Your task to perform on an android device: Show me the alarms in the clock app Image 0: 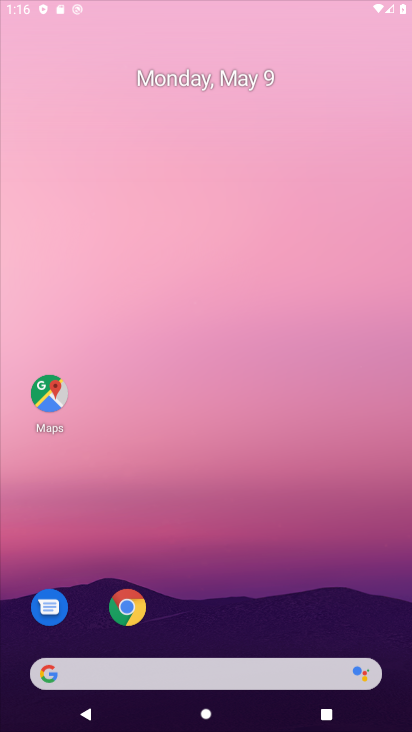
Step 0: click (263, 606)
Your task to perform on an android device: Show me the alarms in the clock app Image 1: 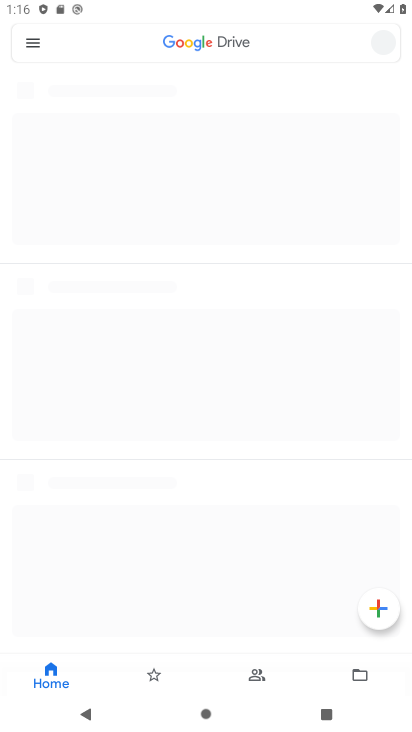
Step 1: click (42, 394)
Your task to perform on an android device: Show me the alarms in the clock app Image 2: 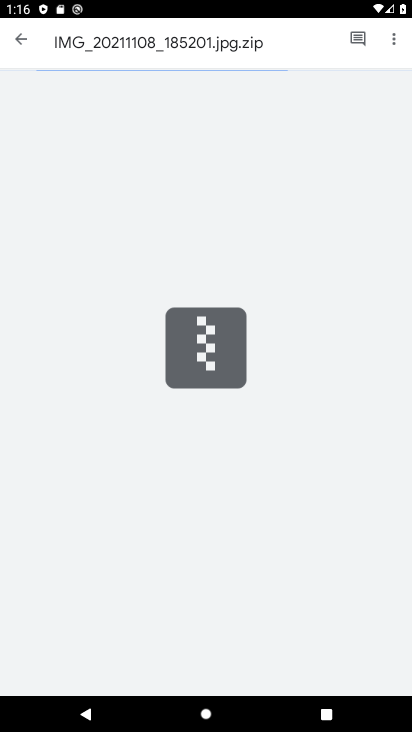
Step 2: press home button
Your task to perform on an android device: Show me the alarms in the clock app Image 3: 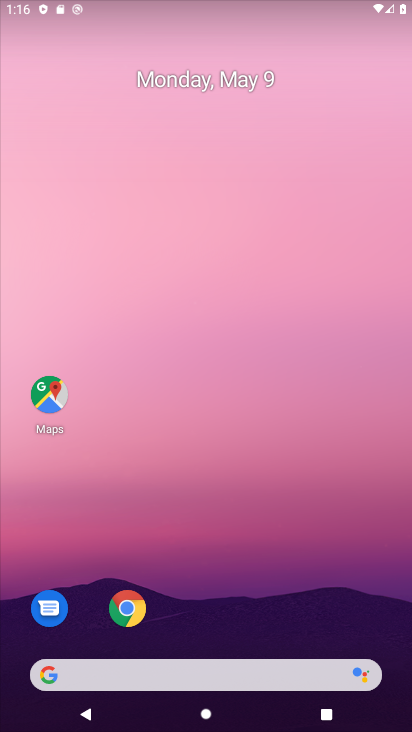
Step 3: drag from (237, 612) to (215, 60)
Your task to perform on an android device: Show me the alarms in the clock app Image 4: 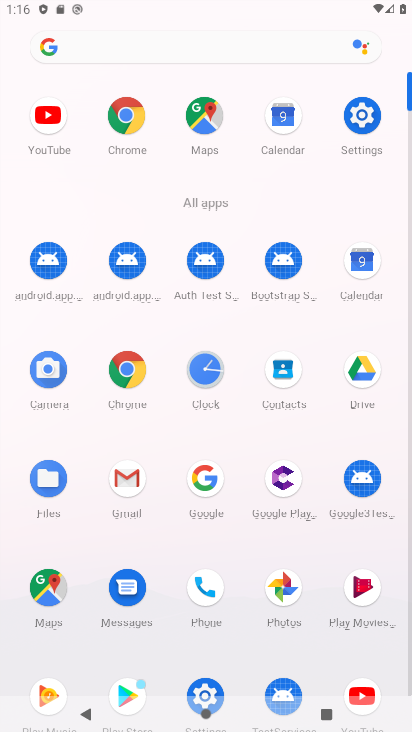
Step 4: click (186, 376)
Your task to perform on an android device: Show me the alarms in the clock app Image 5: 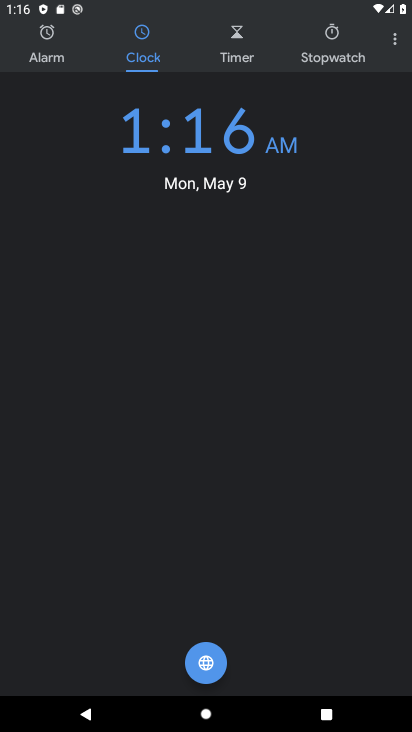
Step 5: click (29, 59)
Your task to perform on an android device: Show me the alarms in the clock app Image 6: 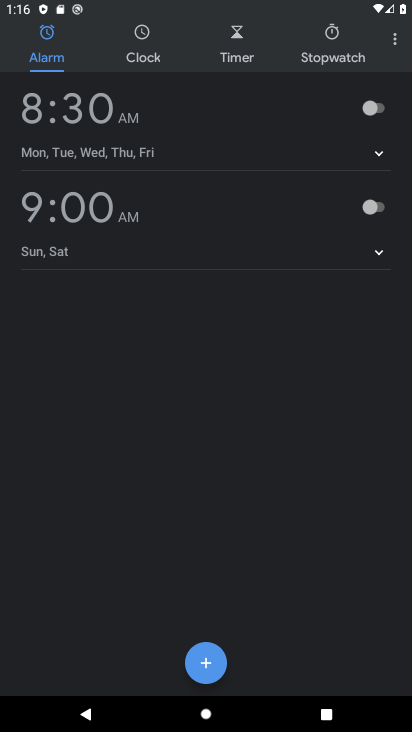
Step 6: task complete